Your task to perform on an android device: Open Android settings Image 0: 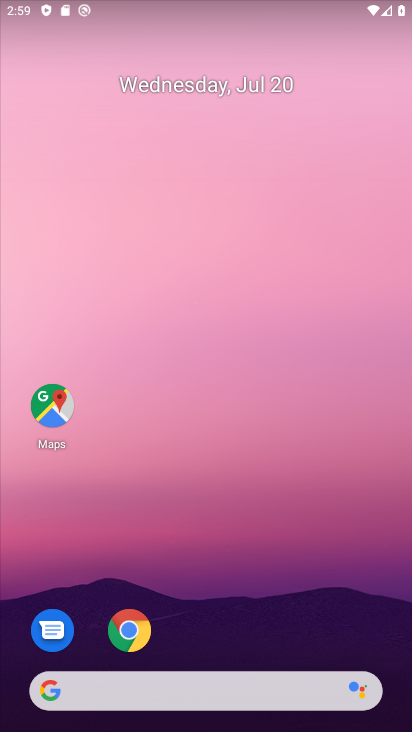
Step 0: drag from (309, 584) to (262, 9)
Your task to perform on an android device: Open Android settings Image 1: 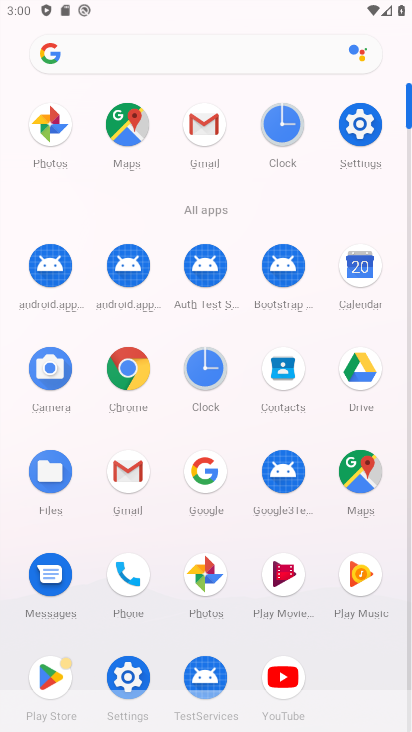
Step 1: click (342, 125)
Your task to perform on an android device: Open Android settings Image 2: 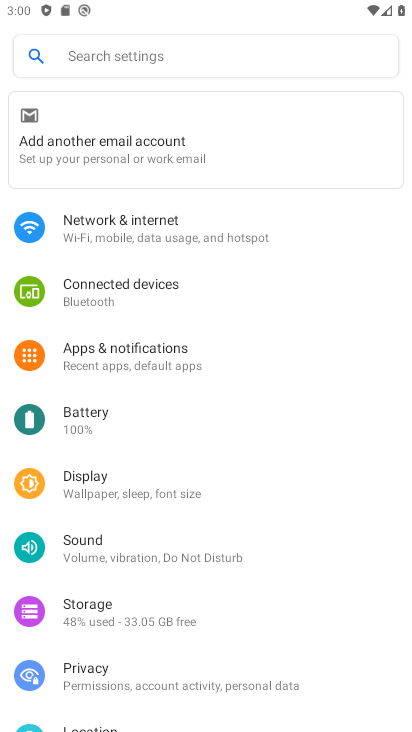
Step 2: task complete